Your task to perform on an android device: move an email to a new category in the gmail app Image 0: 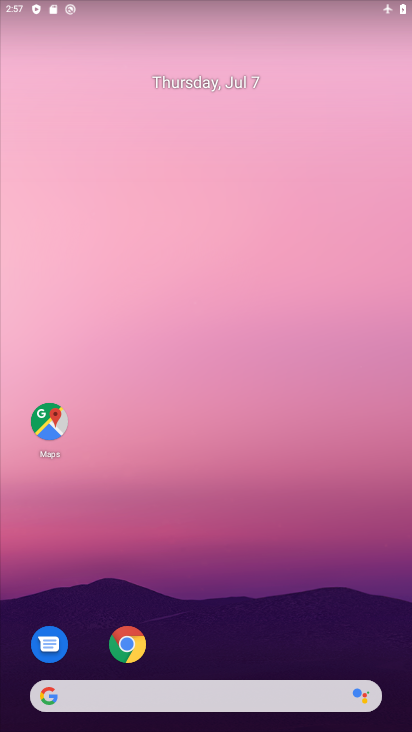
Step 0: click (191, 155)
Your task to perform on an android device: move an email to a new category in the gmail app Image 1: 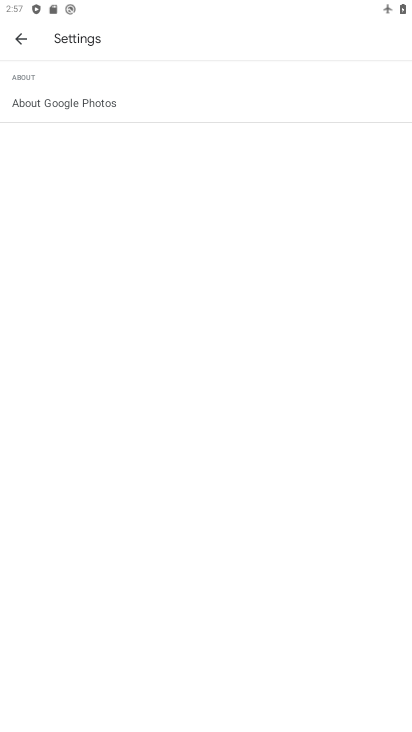
Step 1: click (17, 39)
Your task to perform on an android device: move an email to a new category in the gmail app Image 2: 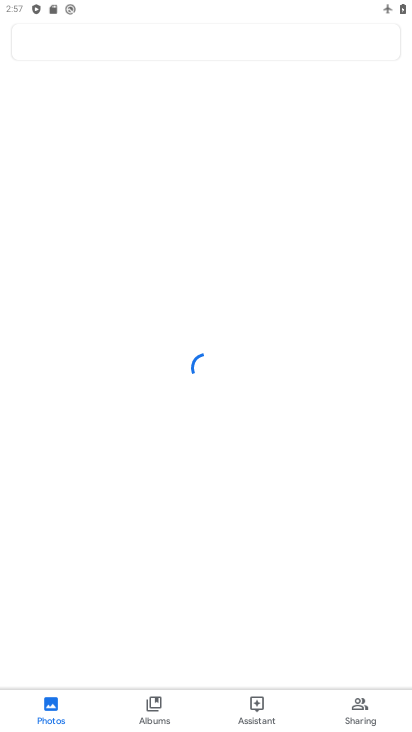
Step 2: press back button
Your task to perform on an android device: move an email to a new category in the gmail app Image 3: 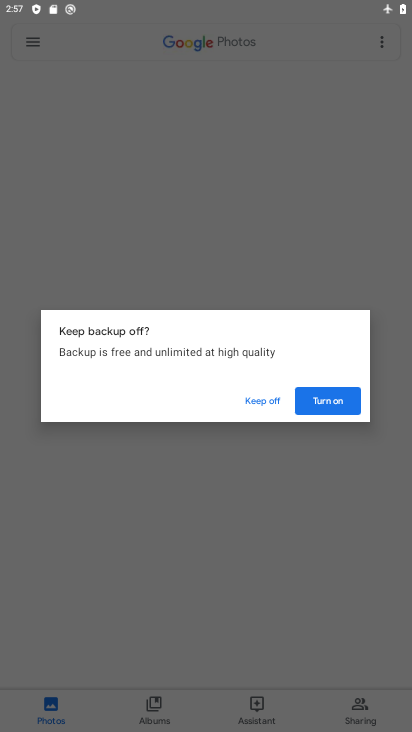
Step 3: click (244, 405)
Your task to perform on an android device: move an email to a new category in the gmail app Image 4: 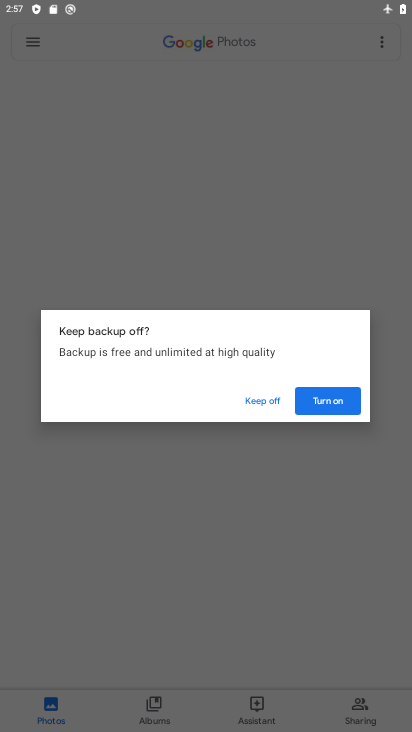
Step 4: press home button
Your task to perform on an android device: move an email to a new category in the gmail app Image 5: 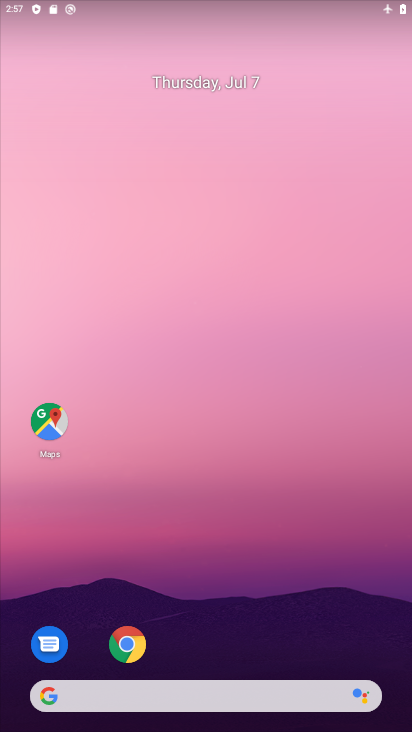
Step 5: drag from (244, 469) to (154, 14)
Your task to perform on an android device: move an email to a new category in the gmail app Image 6: 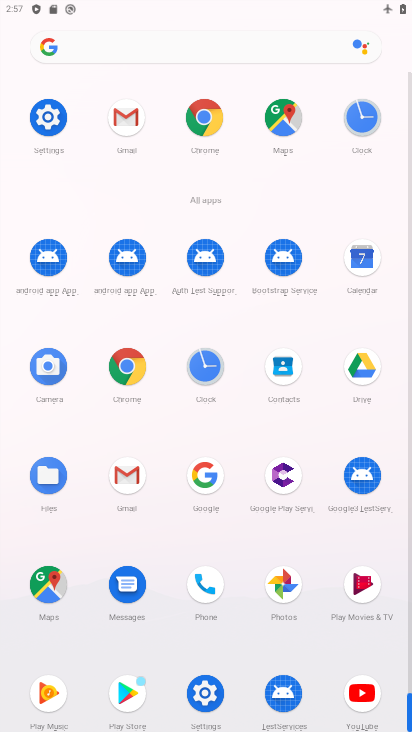
Step 6: click (122, 474)
Your task to perform on an android device: move an email to a new category in the gmail app Image 7: 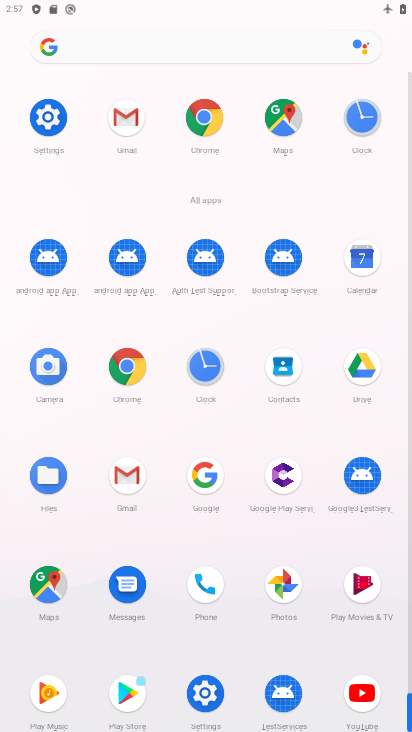
Step 7: click (122, 474)
Your task to perform on an android device: move an email to a new category in the gmail app Image 8: 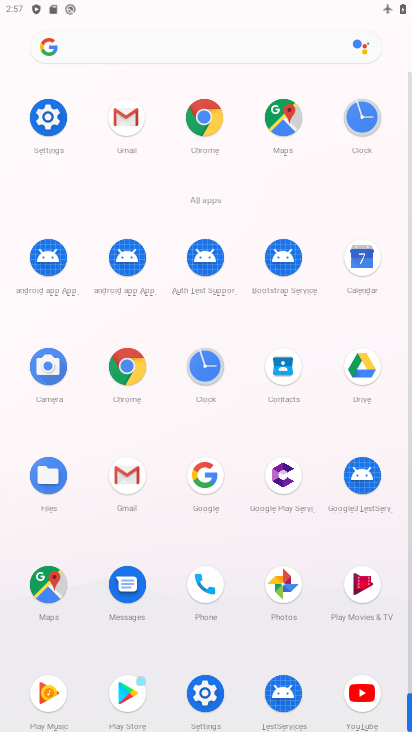
Step 8: click (124, 475)
Your task to perform on an android device: move an email to a new category in the gmail app Image 9: 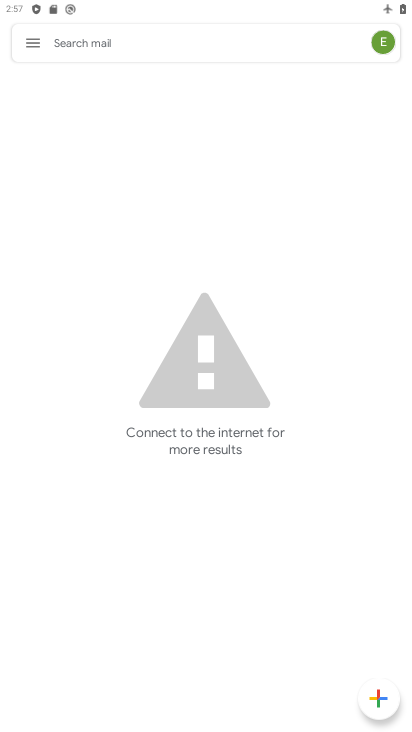
Step 9: task complete